Your task to perform on an android device: Set the phone to "Do not disturb". Image 0: 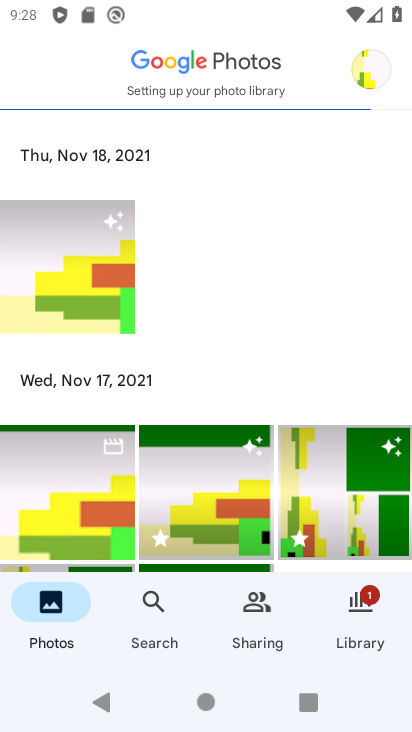
Step 0: press home button
Your task to perform on an android device: Set the phone to "Do not disturb". Image 1: 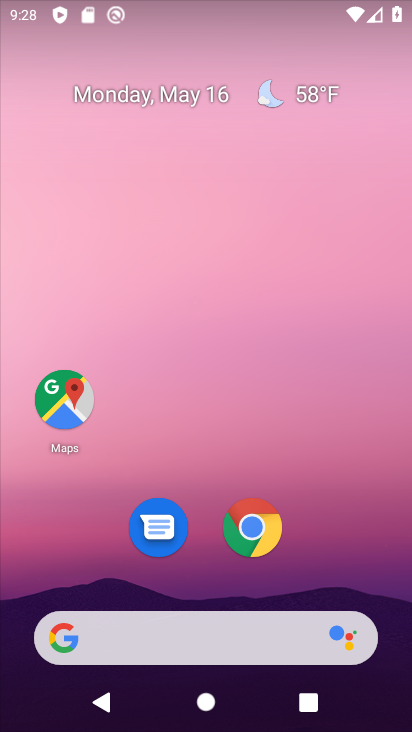
Step 1: drag from (392, 580) to (362, 263)
Your task to perform on an android device: Set the phone to "Do not disturb". Image 2: 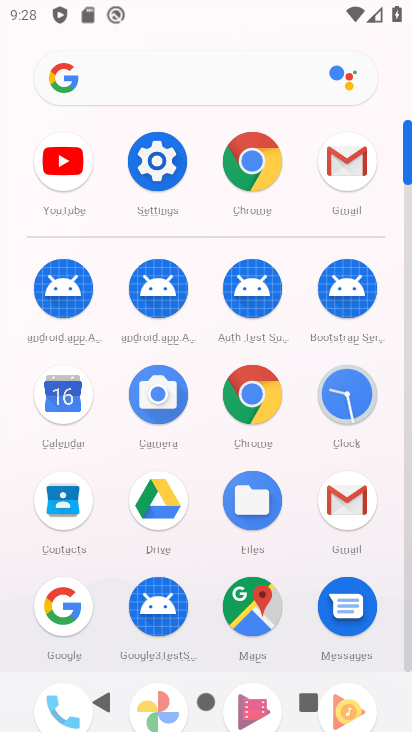
Step 2: click (159, 167)
Your task to perform on an android device: Set the phone to "Do not disturb". Image 3: 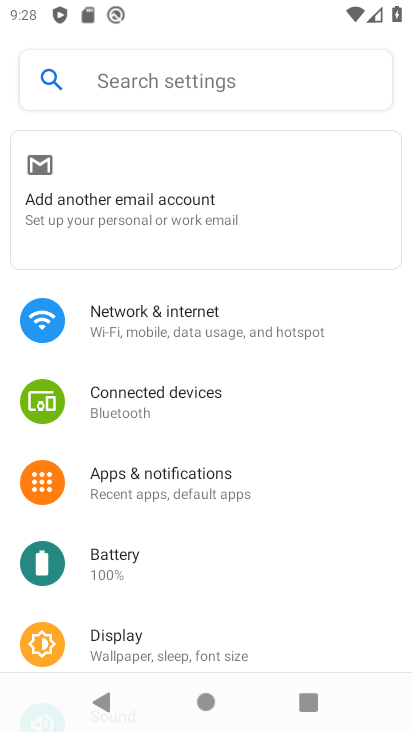
Step 3: drag from (315, 623) to (298, 406)
Your task to perform on an android device: Set the phone to "Do not disturb". Image 4: 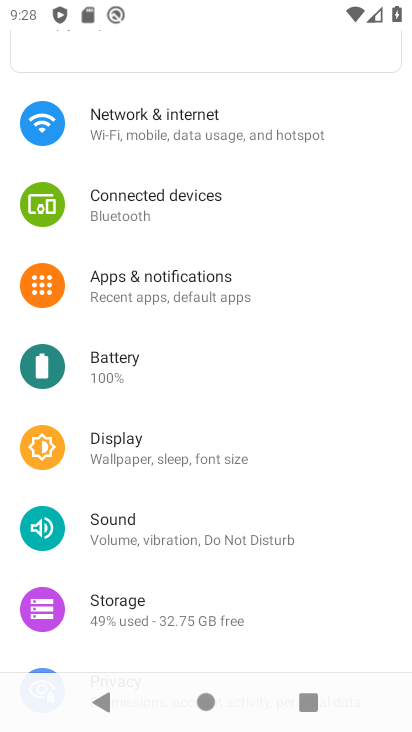
Step 4: click (123, 529)
Your task to perform on an android device: Set the phone to "Do not disturb". Image 5: 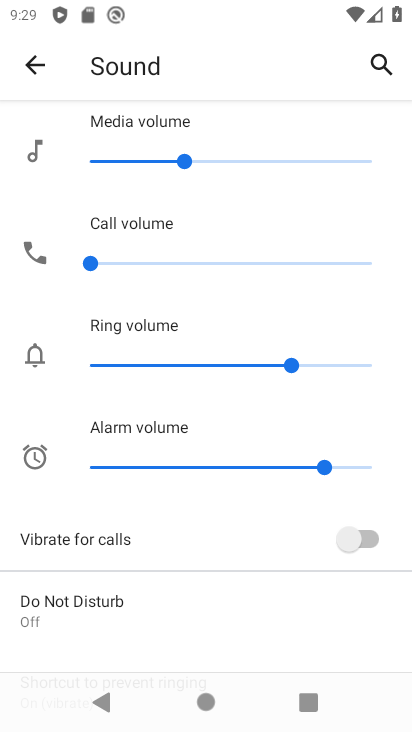
Step 5: click (76, 602)
Your task to perform on an android device: Set the phone to "Do not disturb". Image 6: 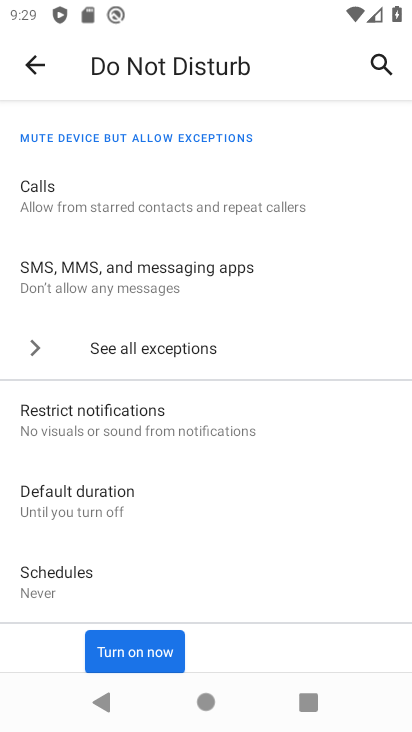
Step 6: click (127, 653)
Your task to perform on an android device: Set the phone to "Do not disturb". Image 7: 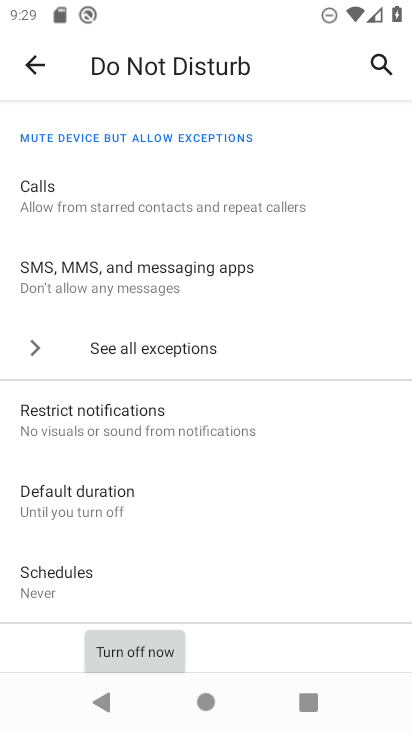
Step 7: task complete